Your task to perform on an android device: find snoozed emails in the gmail app Image 0: 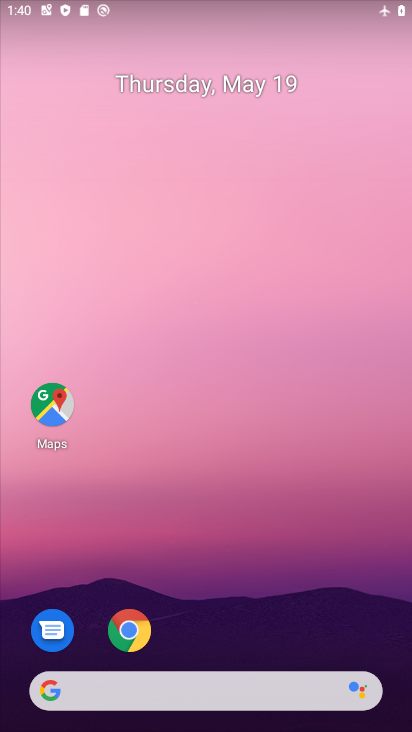
Step 0: drag from (191, 665) to (146, 79)
Your task to perform on an android device: find snoozed emails in the gmail app Image 1: 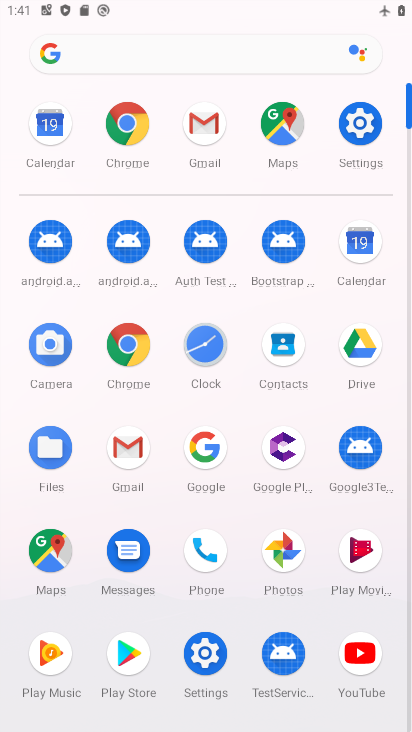
Step 1: click (132, 451)
Your task to perform on an android device: find snoozed emails in the gmail app Image 2: 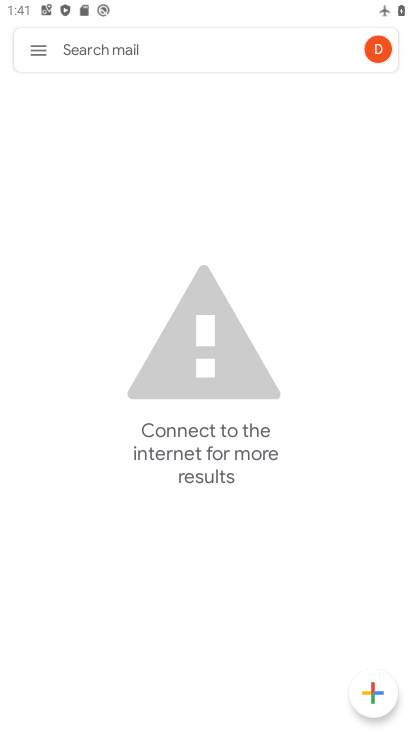
Step 2: click (34, 56)
Your task to perform on an android device: find snoozed emails in the gmail app Image 3: 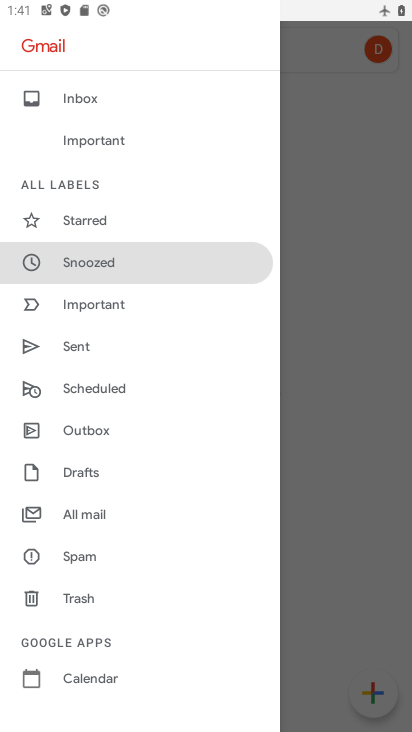
Step 3: click (89, 256)
Your task to perform on an android device: find snoozed emails in the gmail app Image 4: 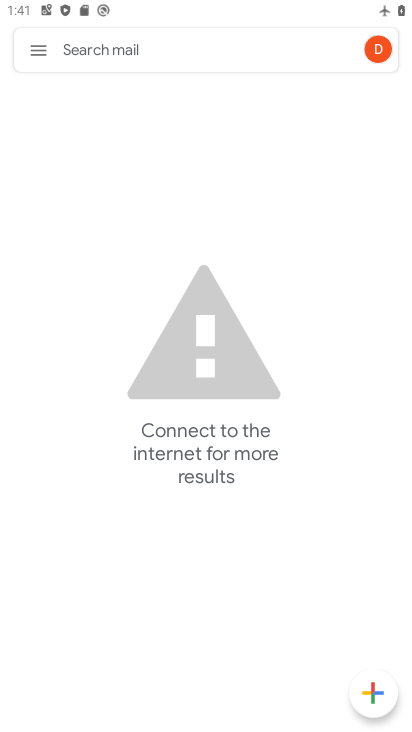
Step 4: task complete